Your task to perform on an android device: Go to Google maps Image 0: 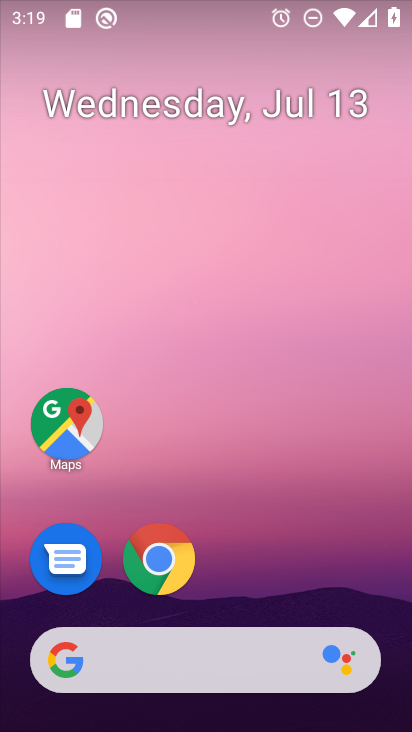
Step 0: drag from (305, 594) to (376, 222)
Your task to perform on an android device: Go to Google maps Image 1: 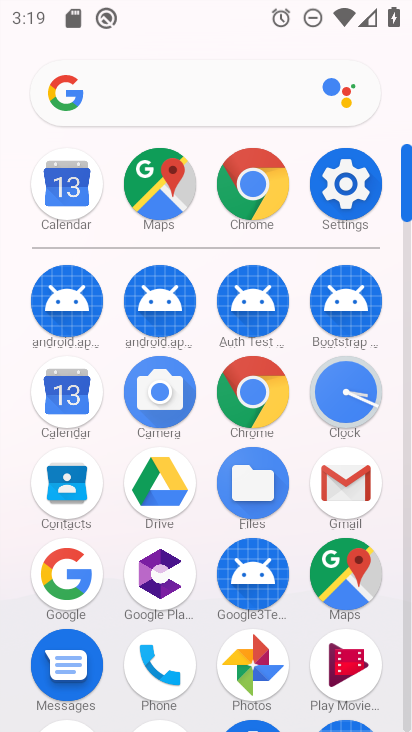
Step 1: click (358, 563)
Your task to perform on an android device: Go to Google maps Image 2: 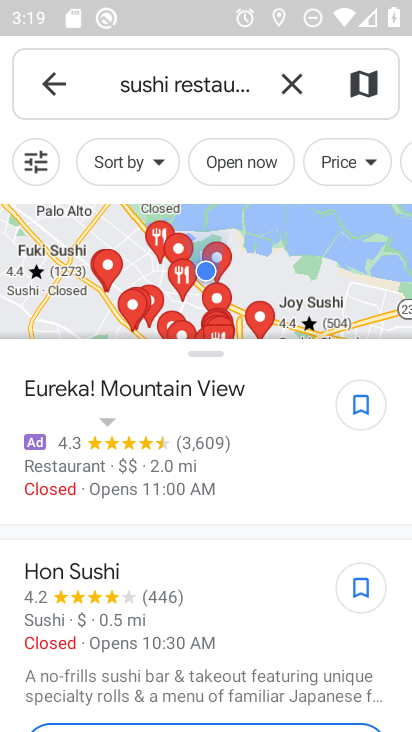
Step 2: task complete